Your task to perform on an android device: Go to eBay Image 0: 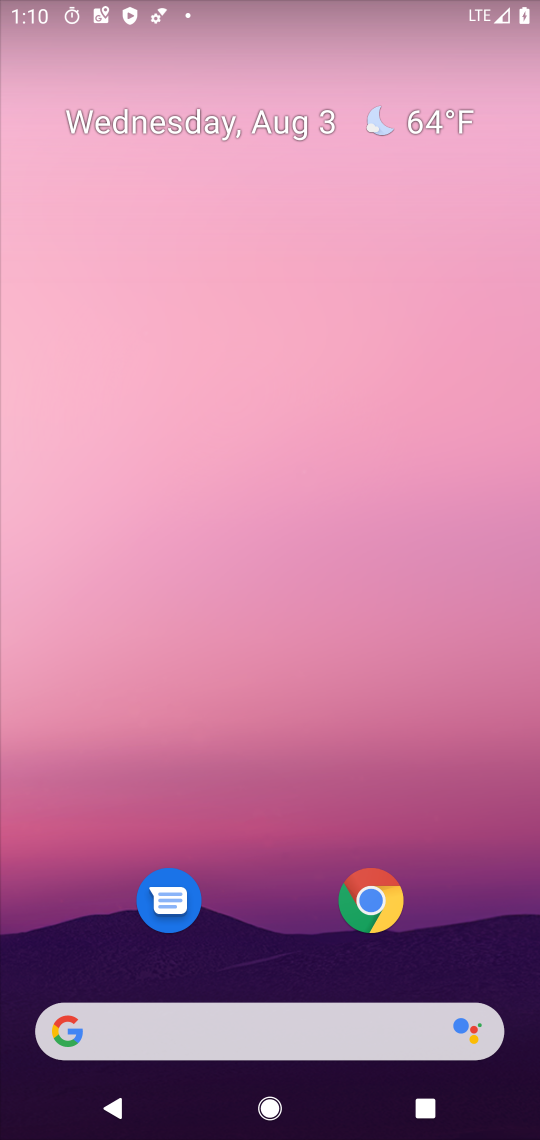
Step 0: drag from (276, 619) to (334, 127)
Your task to perform on an android device: Go to eBay Image 1: 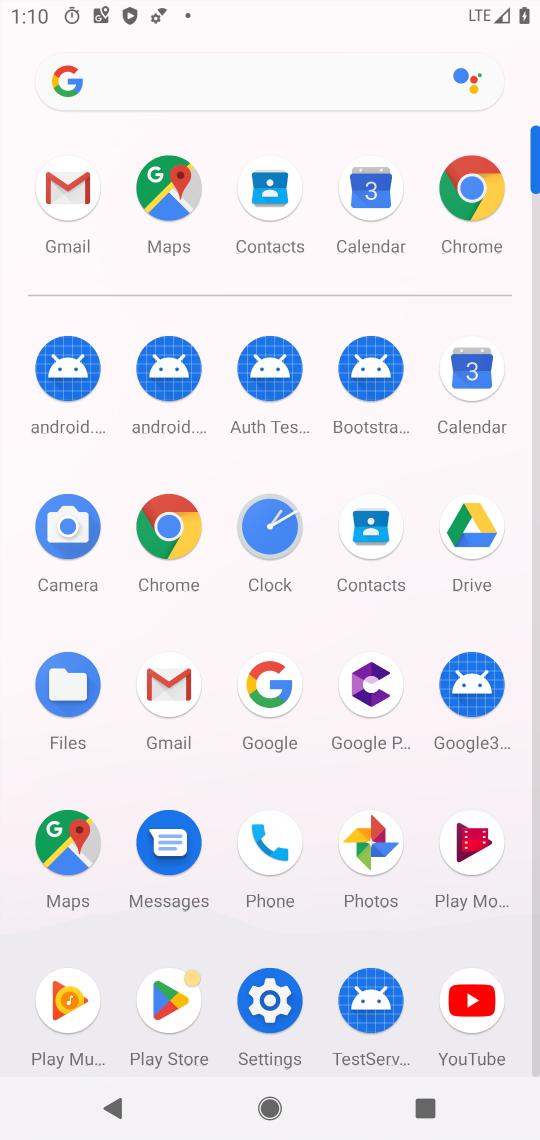
Step 1: click (170, 527)
Your task to perform on an android device: Go to eBay Image 2: 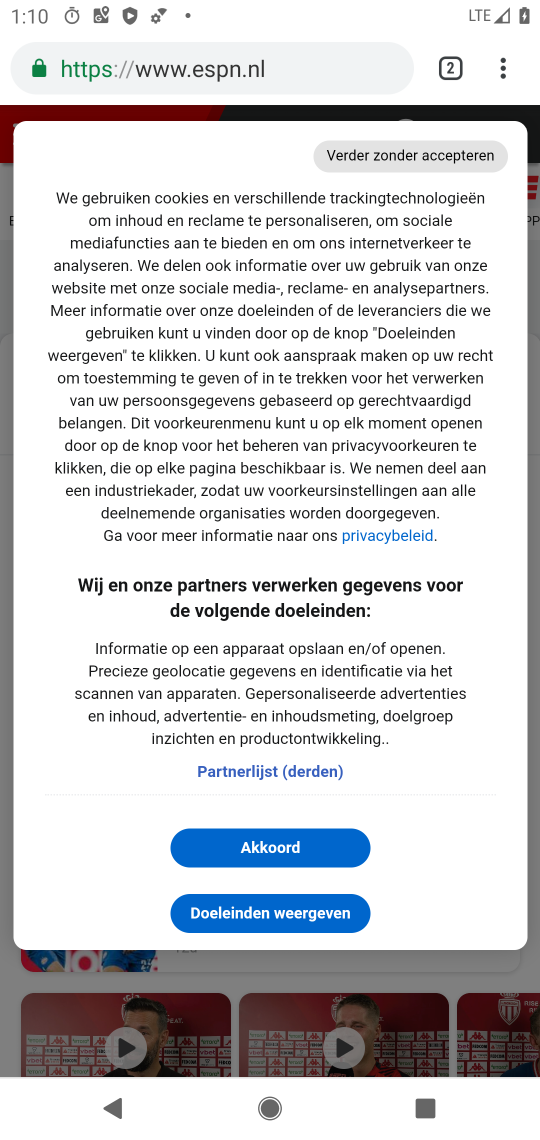
Step 2: click (288, 75)
Your task to perform on an android device: Go to eBay Image 3: 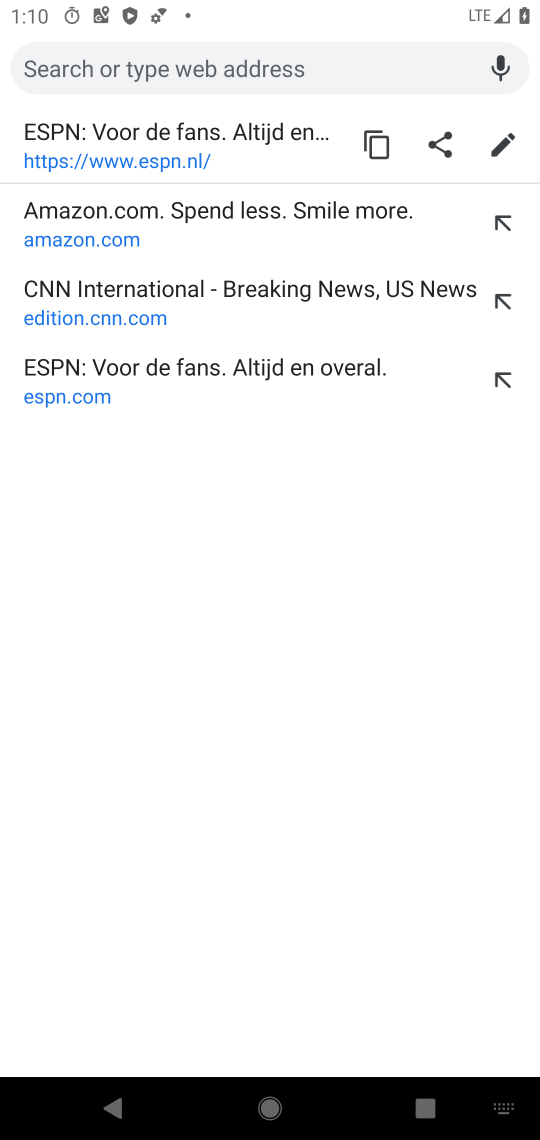
Step 3: type "eBay"
Your task to perform on an android device: Go to eBay Image 4: 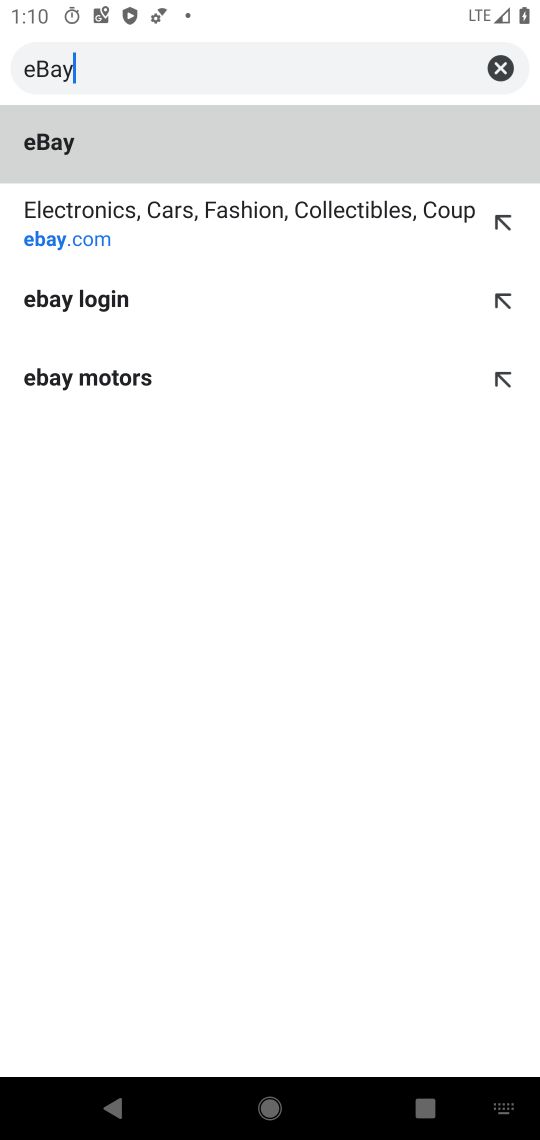
Step 4: click (90, 234)
Your task to perform on an android device: Go to eBay Image 5: 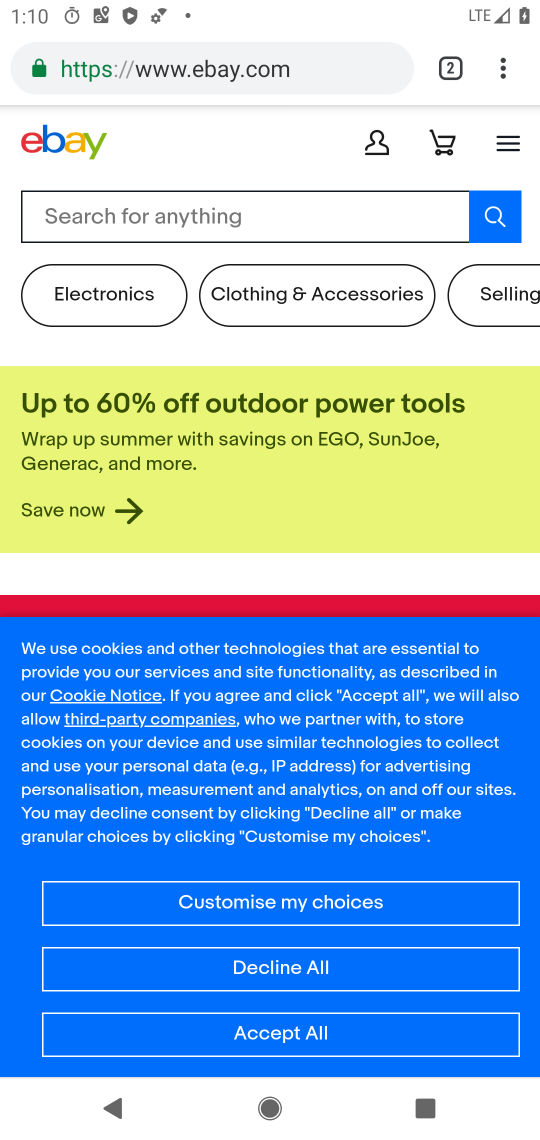
Step 5: task complete